Your task to perform on an android device: Open the calendar app, open the side menu, and click the "Day" option Image 0: 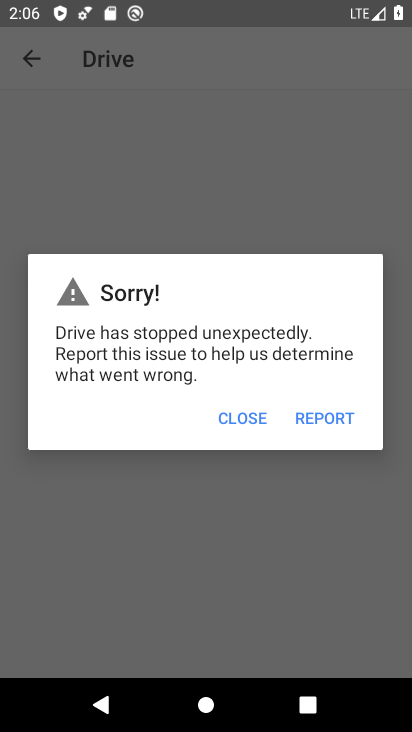
Step 0: press home button
Your task to perform on an android device: Open the calendar app, open the side menu, and click the "Day" option Image 1: 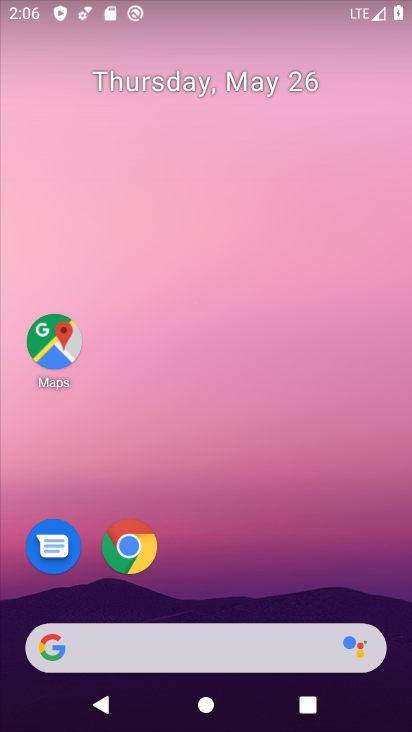
Step 1: drag from (295, 466) to (257, 3)
Your task to perform on an android device: Open the calendar app, open the side menu, and click the "Day" option Image 2: 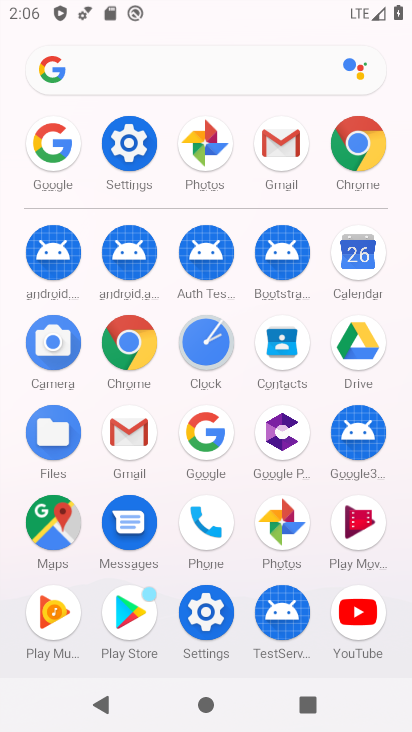
Step 2: click (362, 266)
Your task to perform on an android device: Open the calendar app, open the side menu, and click the "Day" option Image 3: 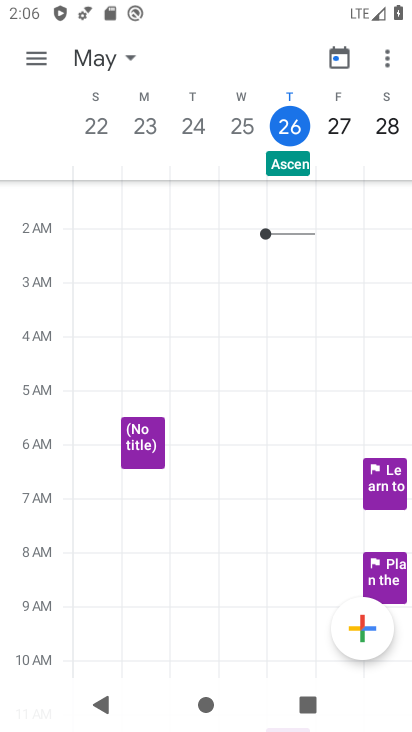
Step 3: click (41, 59)
Your task to perform on an android device: Open the calendar app, open the side menu, and click the "Day" option Image 4: 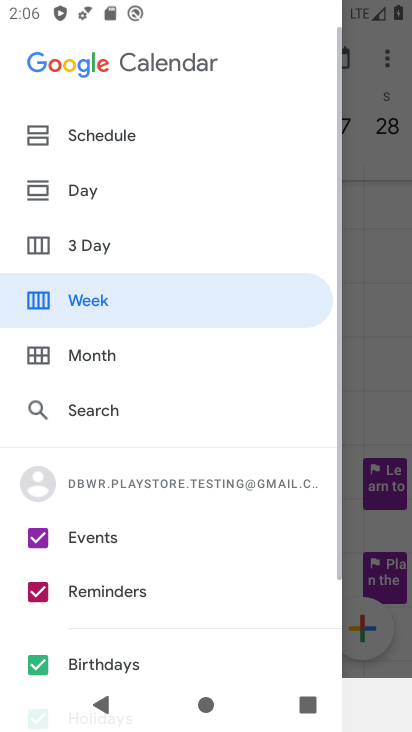
Step 4: click (99, 177)
Your task to perform on an android device: Open the calendar app, open the side menu, and click the "Day" option Image 5: 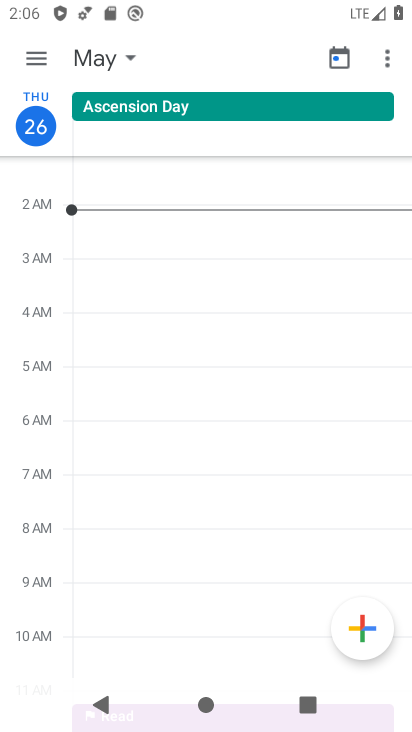
Step 5: task complete